Your task to perform on an android device: Do I have any events tomorrow? Image 0: 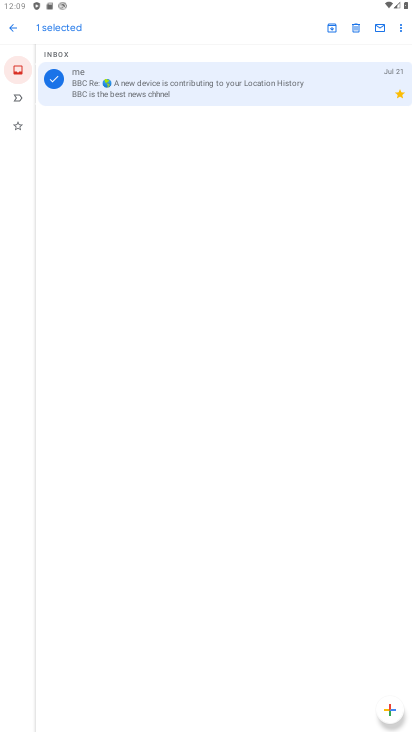
Step 0: press home button
Your task to perform on an android device: Do I have any events tomorrow? Image 1: 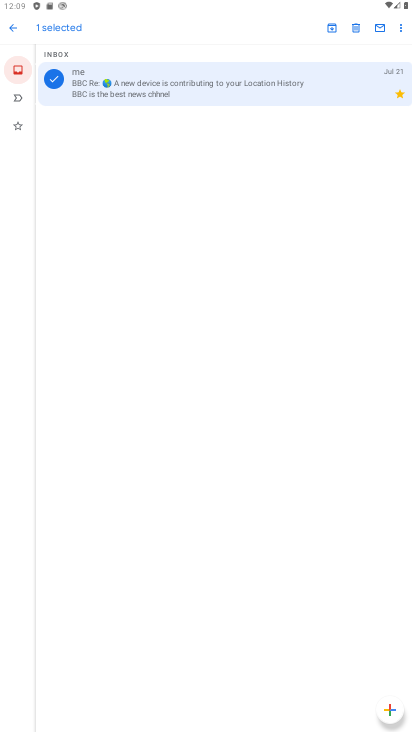
Step 1: press home button
Your task to perform on an android device: Do I have any events tomorrow? Image 2: 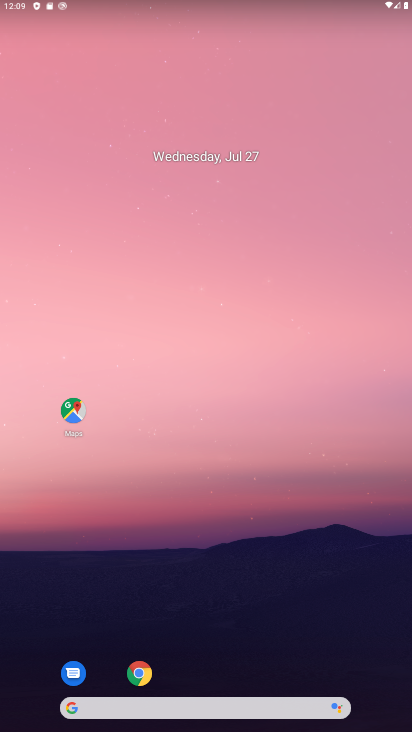
Step 2: drag from (339, 617) to (310, 76)
Your task to perform on an android device: Do I have any events tomorrow? Image 3: 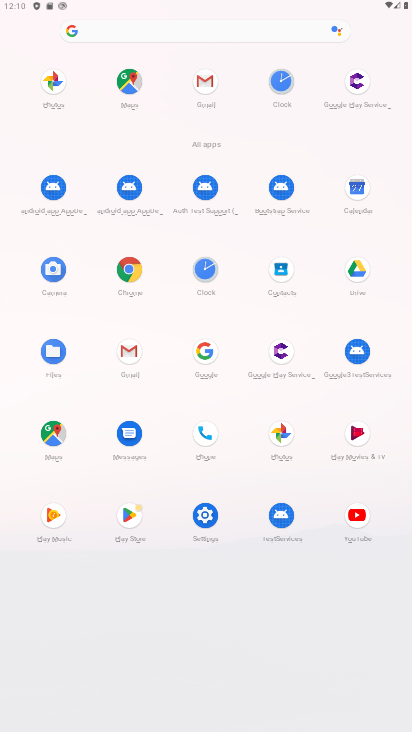
Step 3: click (361, 183)
Your task to perform on an android device: Do I have any events tomorrow? Image 4: 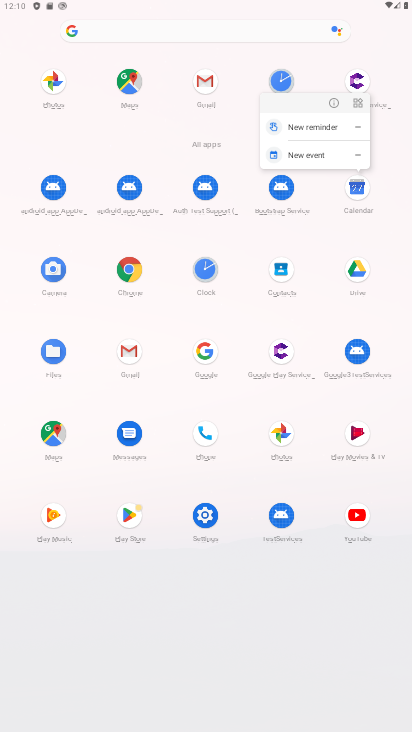
Step 4: click (359, 193)
Your task to perform on an android device: Do I have any events tomorrow? Image 5: 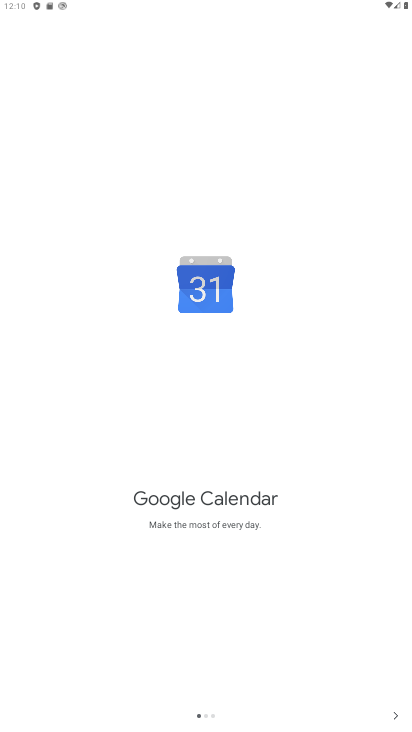
Step 5: click (400, 720)
Your task to perform on an android device: Do I have any events tomorrow? Image 6: 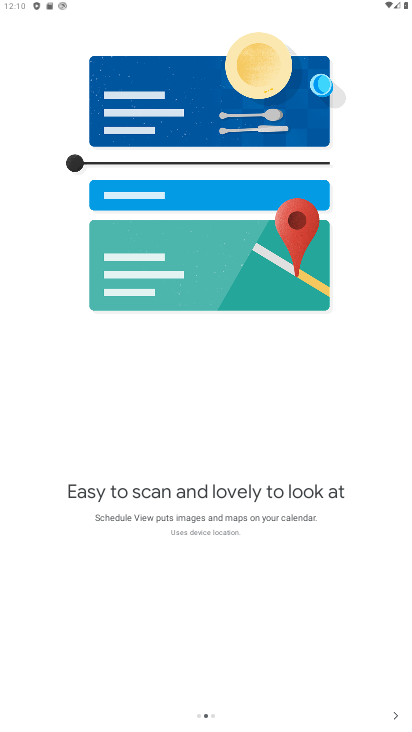
Step 6: click (400, 720)
Your task to perform on an android device: Do I have any events tomorrow? Image 7: 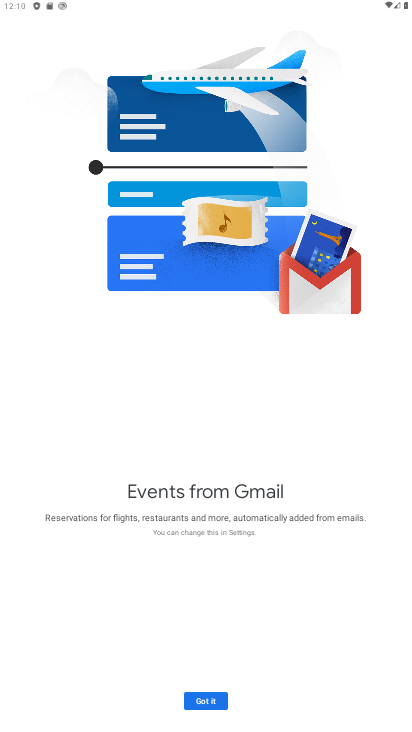
Step 7: click (210, 703)
Your task to perform on an android device: Do I have any events tomorrow? Image 8: 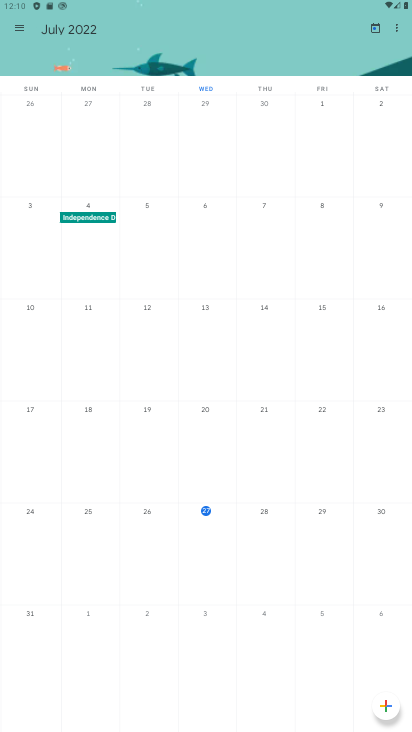
Step 8: click (268, 506)
Your task to perform on an android device: Do I have any events tomorrow? Image 9: 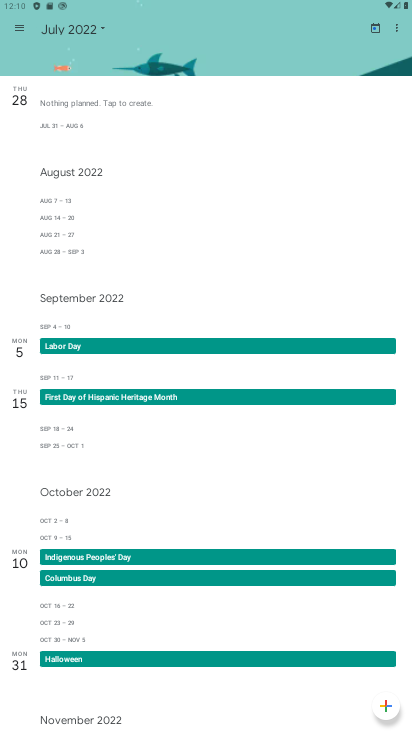
Step 9: task complete